Your task to perform on an android device: check android version Image 0: 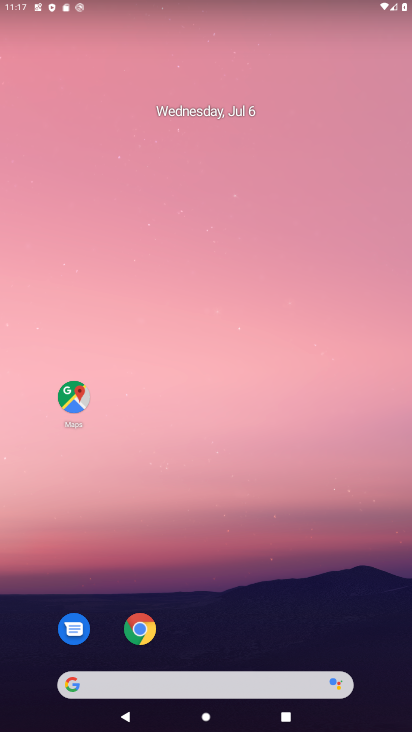
Step 0: drag from (254, 601) to (195, 7)
Your task to perform on an android device: check android version Image 1: 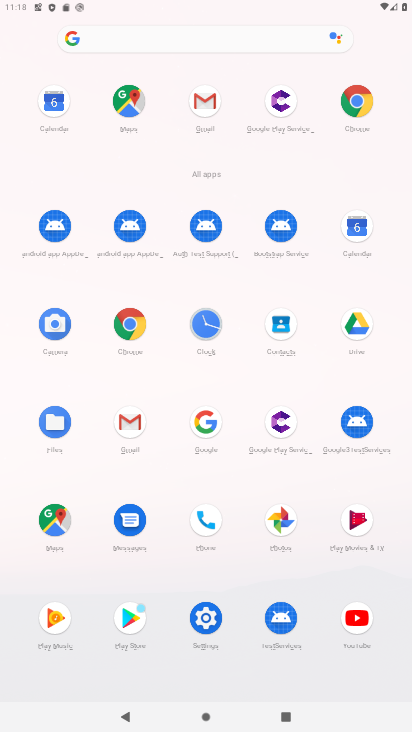
Step 1: click (204, 618)
Your task to perform on an android device: check android version Image 2: 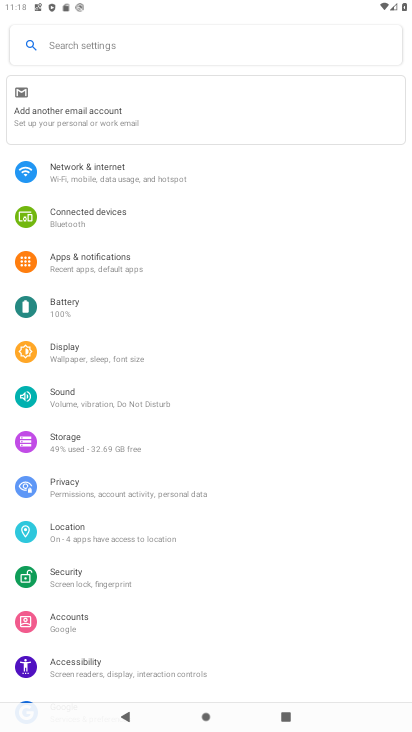
Step 2: drag from (98, 322) to (150, 234)
Your task to perform on an android device: check android version Image 3: 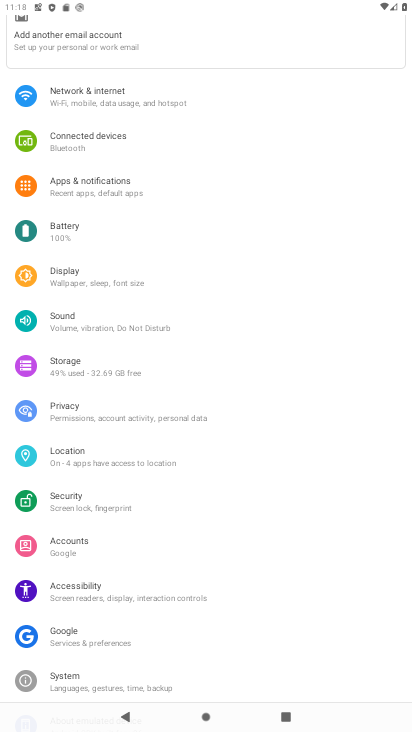
Step 3: drag from (97, 379) to (141, 309)
Your task to perform on an android device: check android version Image 4: 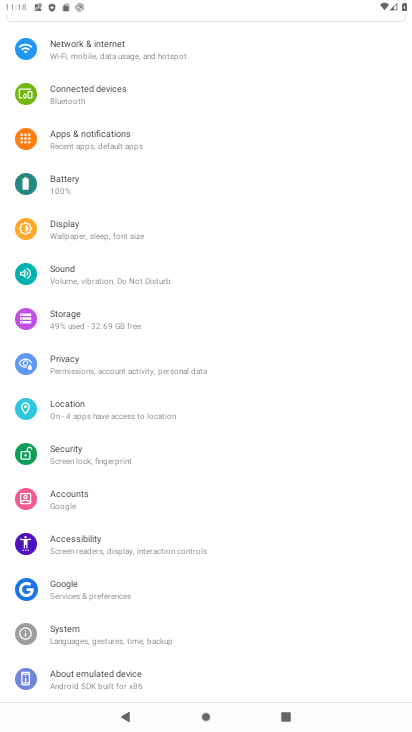
Step 4: drag from (68, 471) to (133, 389)
Your task to perform on an android device: check android version Image 5: 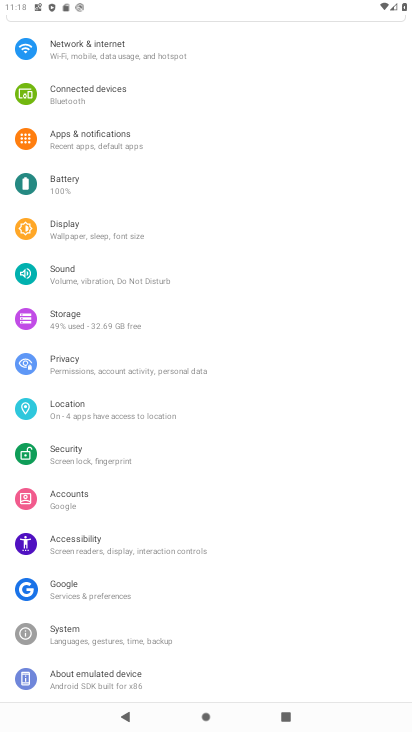
Step 5: click (54, 675)
Your task to perform on an android device: check android version Image 6: 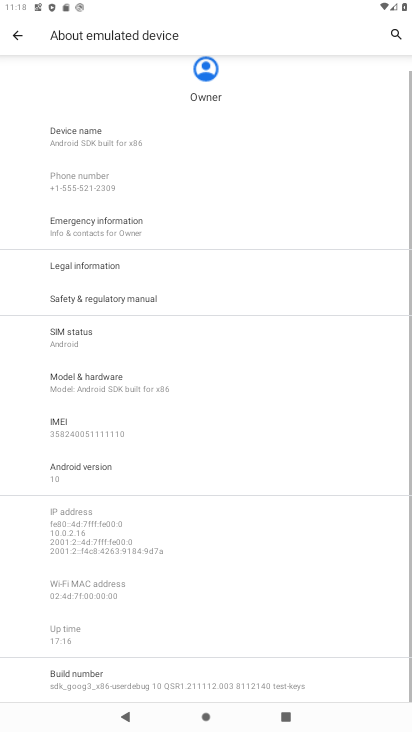
Step 6: click (101, 463)
Your task to perform on an android device: check android version Image 7: 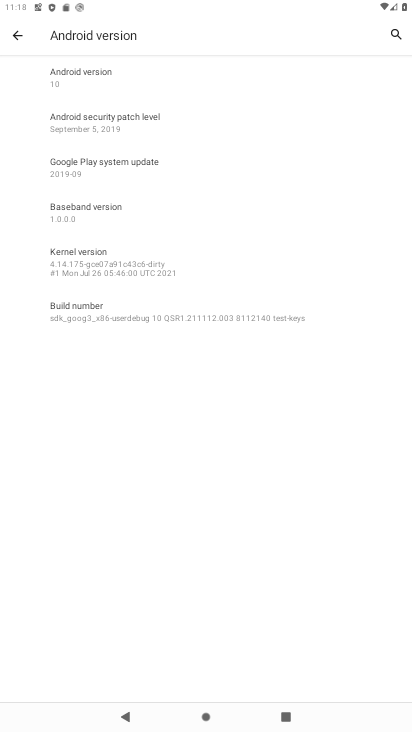
Step 7: task complete